Your task to perform on an android device: turn off javascript in the chrome app Image 0: 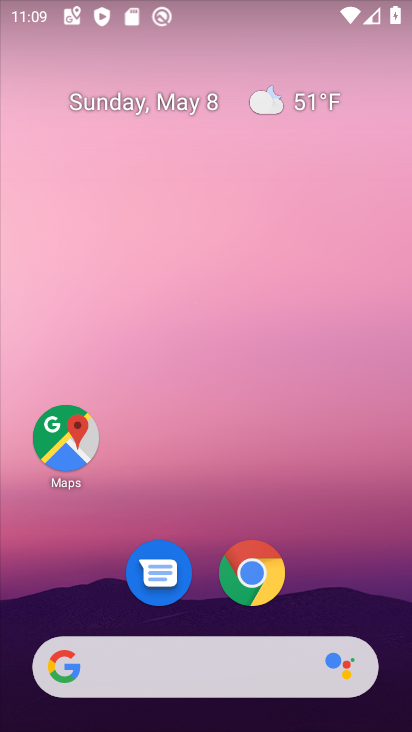
Step 0: click (256, 582)
Your task to perform on an android device: turn off javascript in the chrome app Image 1: 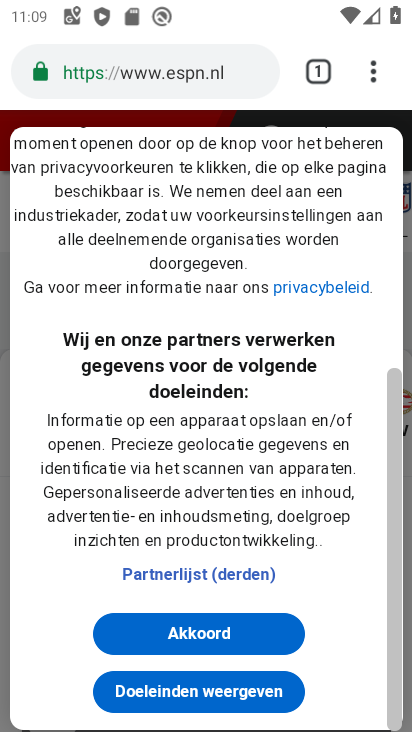
Step 1: click (375, 72)
Your task to perform on an android device: turn off javascript in the chrome app Image 2: 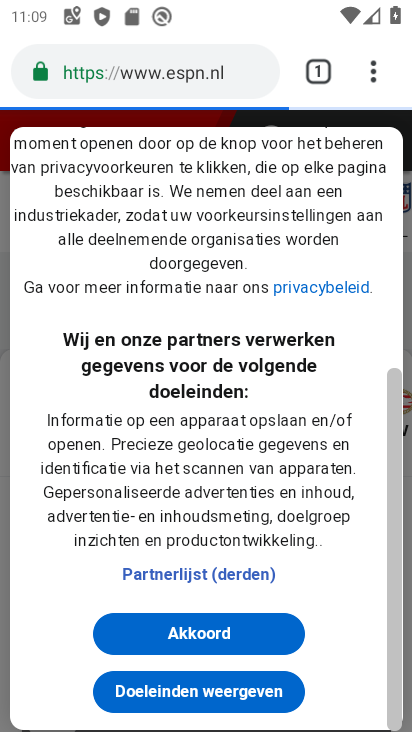
Step 2: click (375, 72)
Your task to perform on an android device: turn off javascript in the chrome app Image 3: 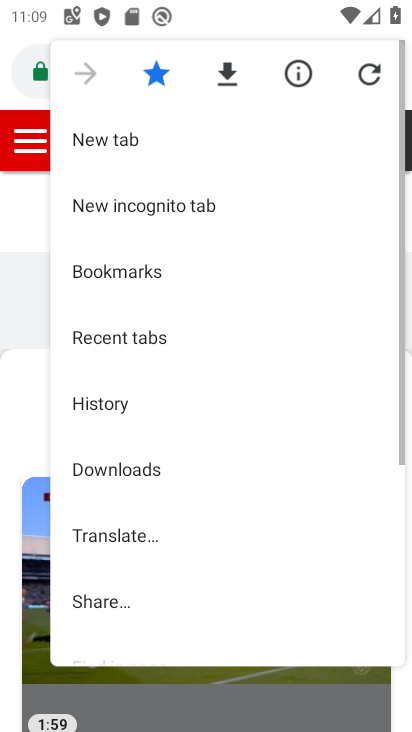
Step 3: drag from (182, 621) to (108, 196)
Your task to perform on an android device: turn off javascript in the chrome app Image 4: 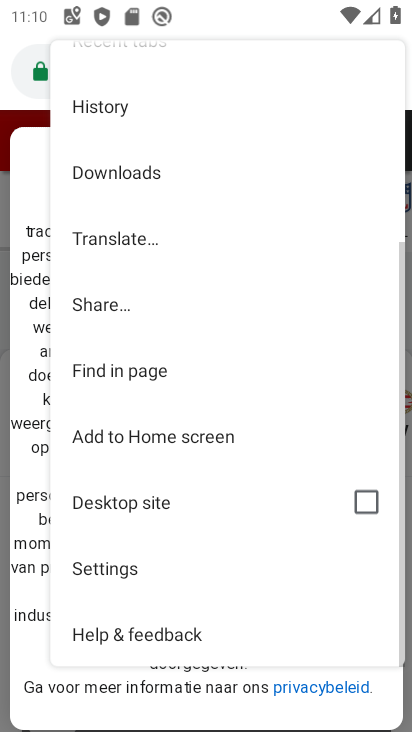
Step 4: click (121, 565)
Your task to perform on an android device: turn off javascript in the chrome app Image 5: 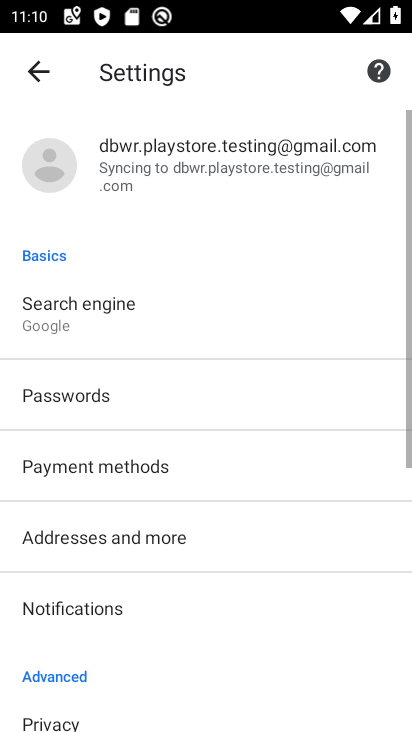
Step 5: drag from (151, 682) to (90, 351)
Your task to perform on an android device: turn off javascript in the chrome app Image 6: 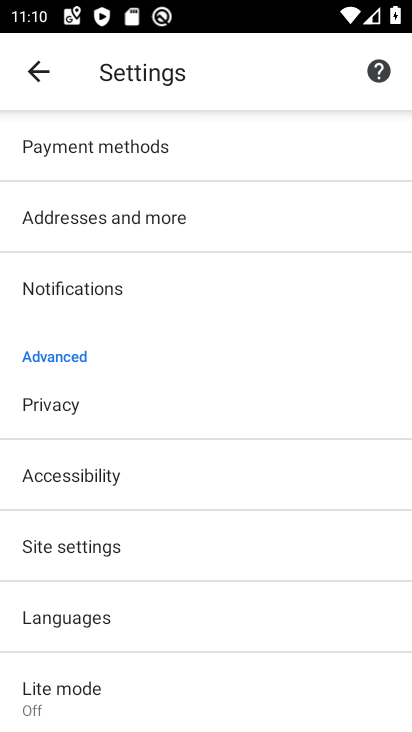
Step 6: click (72, 546)
Your task to perform on an android device: turn off javascript in the chrome app Image 7: 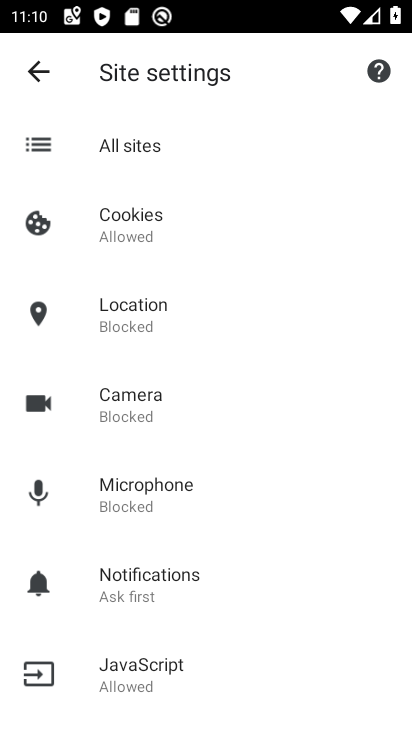
Step 7: drag from (157, 678) to (100, 321)
Your task to perform on an android device: turn off javascript in the chrome app Image 8: 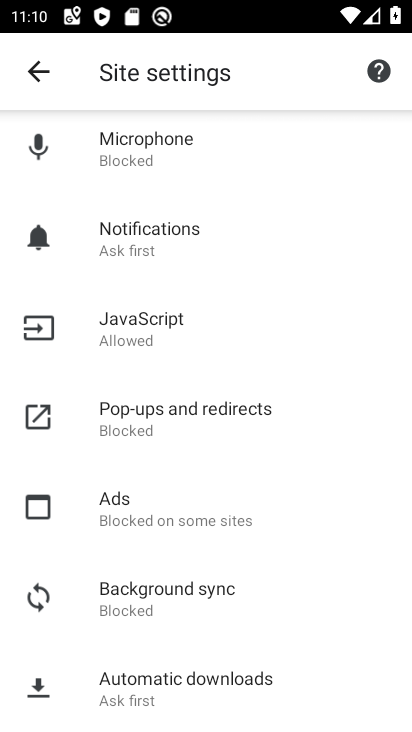
Step 8: click (119, 330)
Your task to perform on an android device: turn off javascript in the chrome app Image 9: 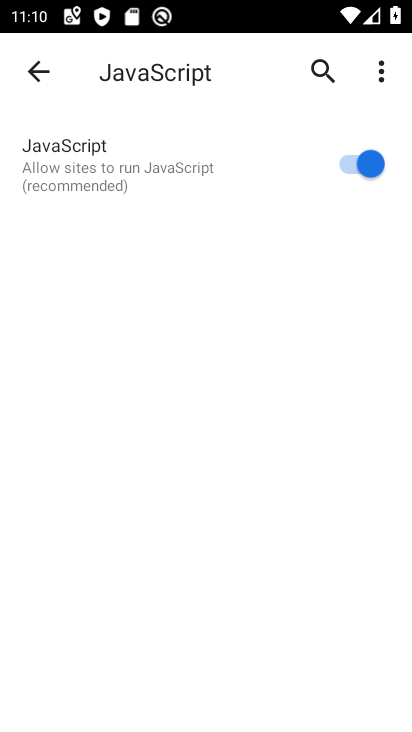
Step 9: click (351, 165)
Your task to perform on an android device: turn off javascript in the chrome app Image 10: 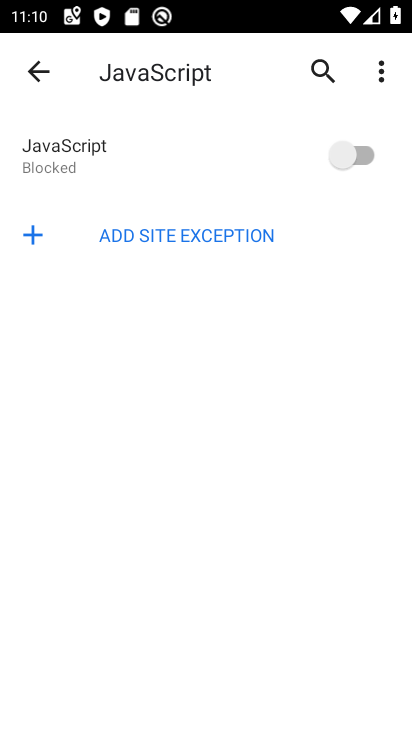
Step 10: task complete